Your task to perform on an android device: open chrome and create a bookmark for the current page Image 0: 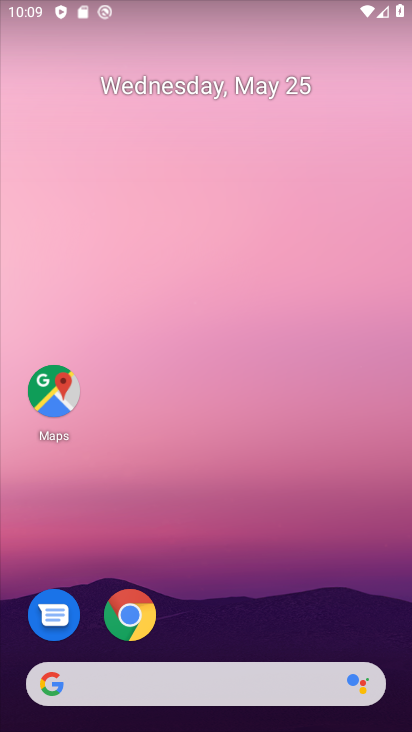
Step 0: click (135, 631)
Your task to perform on an android device: open chrome and create a bookmark for the current page Image 1: 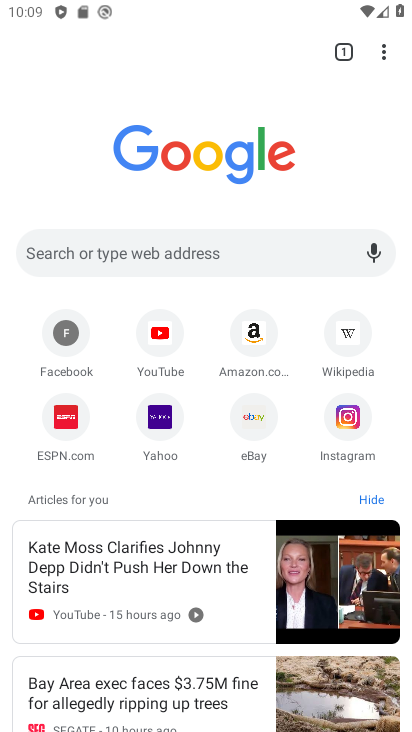
Step 1: click (379, 51)
Your task to perform on an android device: open chrome and create a bookmark for the current page Image 2: 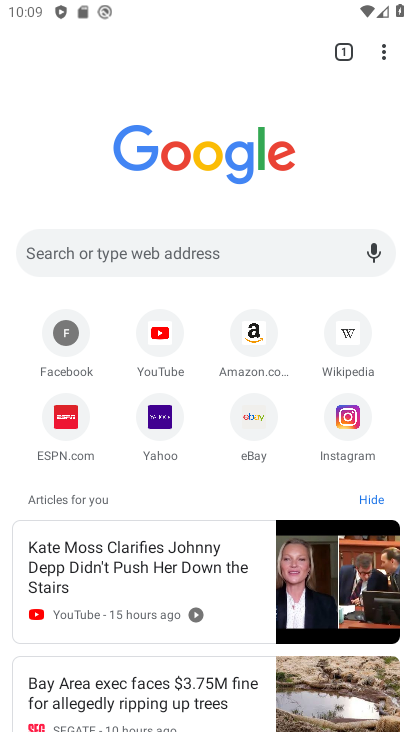
Step 2: click (385, 60)
Your task to perform on an android device: open chrome and create a bookmark for the current page Image 3: 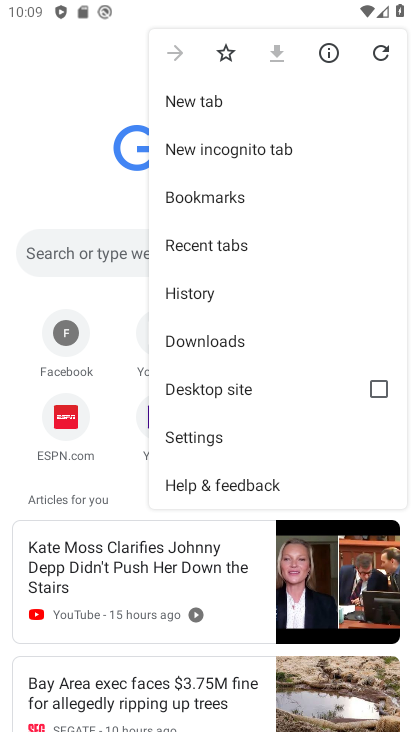
Step 3: click (238, 55)
Your task to perform on an android device: open chrome and create a bookmark for the current page Image 4: 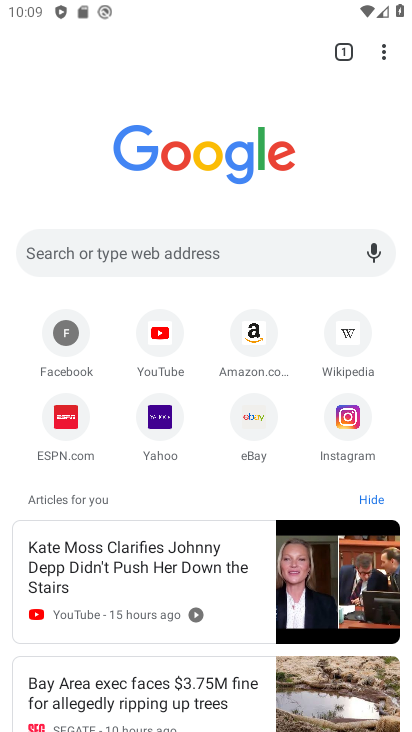
Step 4: click (387, 58)
Your task to perform on an android device: open chrome and create a bookmark for the current page Image 5: 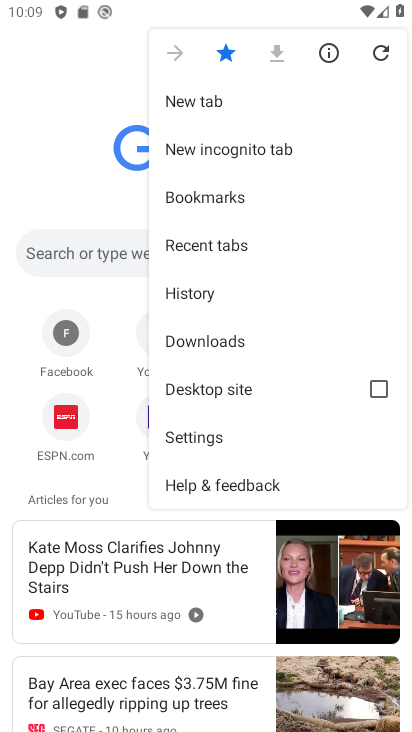
Step 5: task complete